Your task to perform on an android device: Go to privacy settings Image 0: 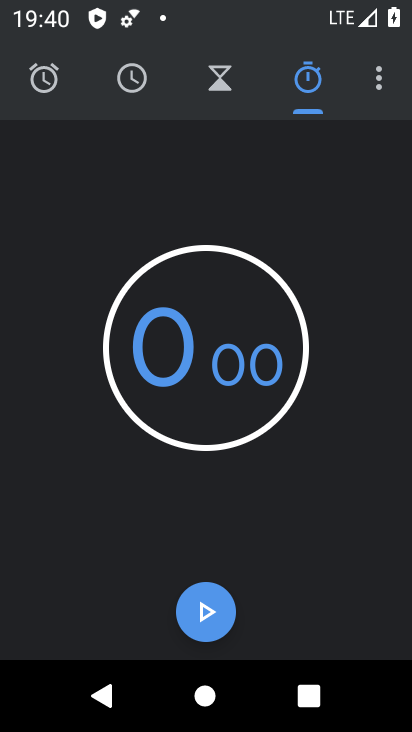
Step 0: press home button
Your task to perform on an android device: Go to privacy settings Image 1: 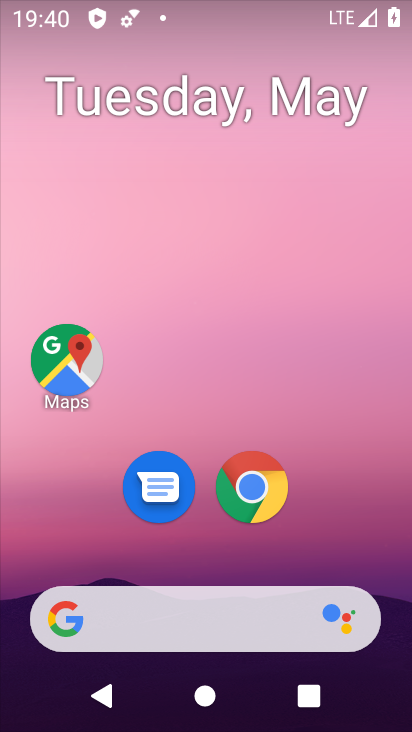
Step 1: drag from (313, 532) to (208, 74)
Your task to perform on an android device: Go to privacy settings Image 2: 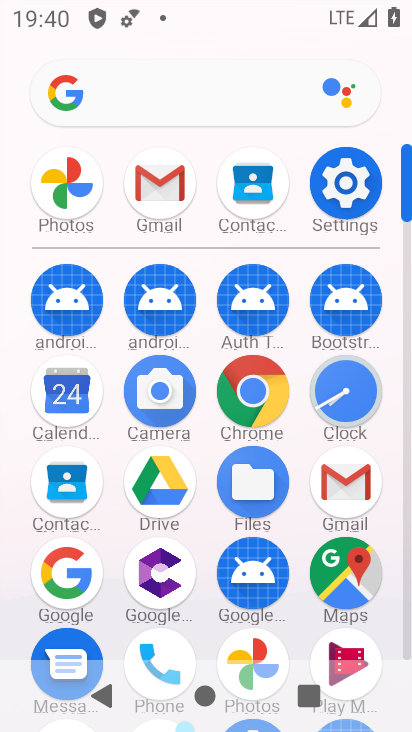
Step 2: click (351, 182)
Your task to perform on an android device: Go to privacy settings Image 3: 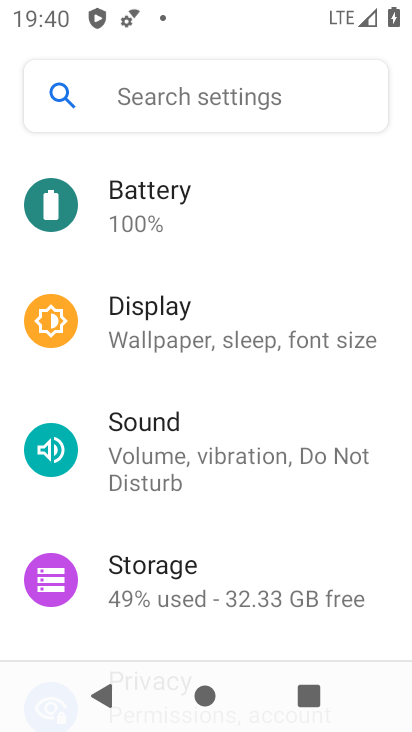
Step 3: drag from (227, 470) to (168, 164)
Your task to perform on an android device: Go to privacy settings Image 4: 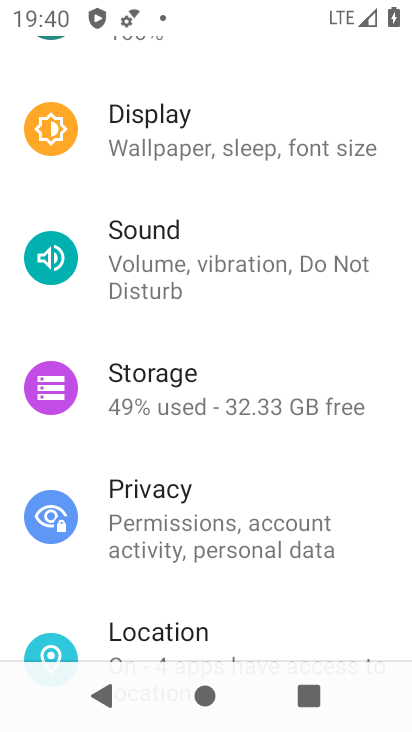
Step 4: click (161, 500)
Your task to perform on an android device: Go to privacy settings Image 5: 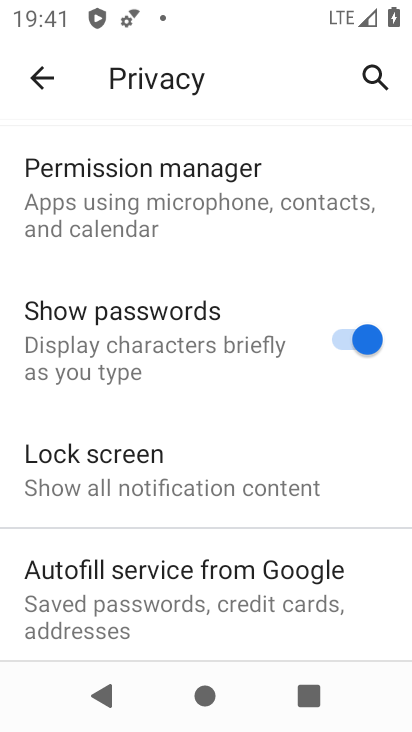
Step 5: task complete